Your task to perform on an android device: Open notification settings Image 0: 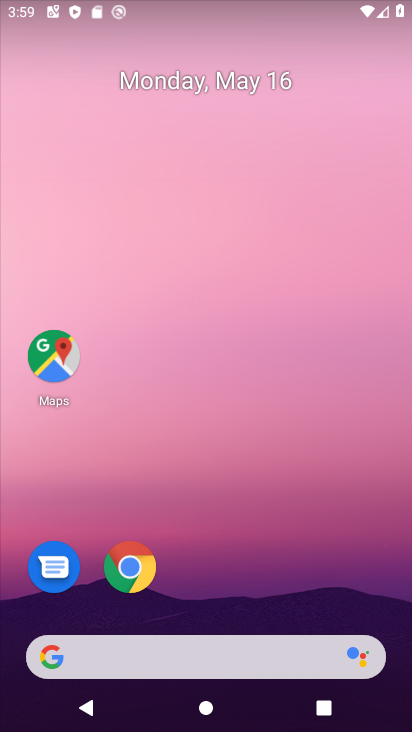
Step 0: drag from (181, 598) to (241, 2)
Your task to perform on an android device: Open notification settings Image 1: 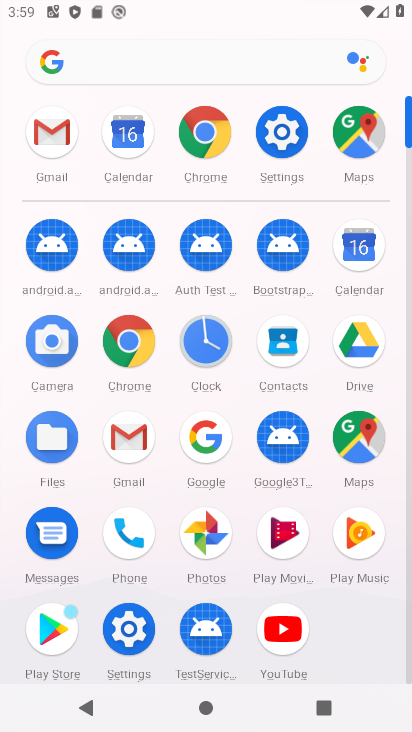
Step 1: click (276, 145)
Your task to perform on an android device: Open notification settings Image 2: 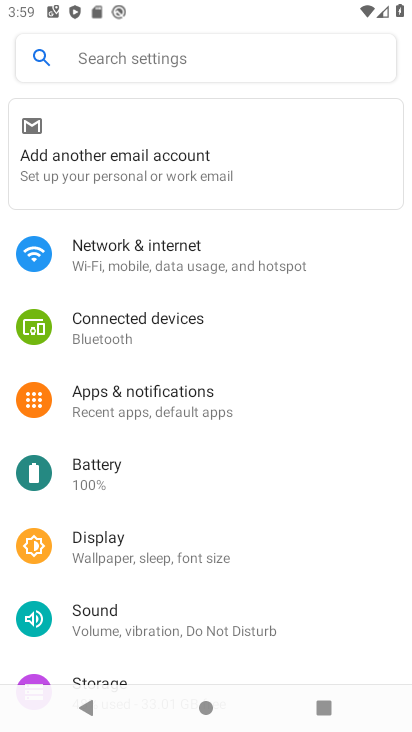
Step 2: click (172, 395)
Your task to perform on an android device: Open notification settings Image 3: 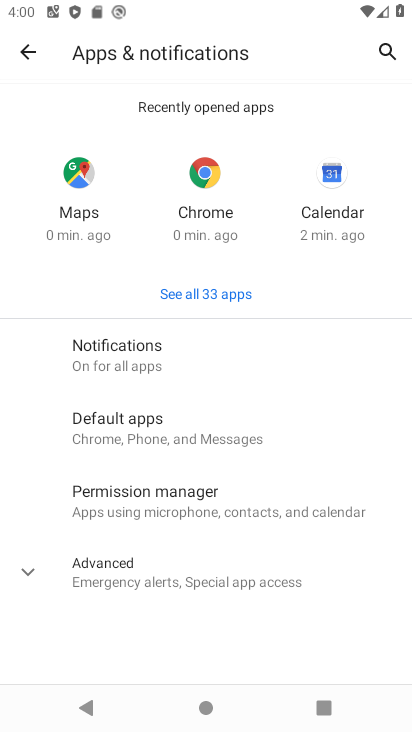
Step 3: click (170, 375)
Your task to perform on an android device: Open notification settings Image 4: 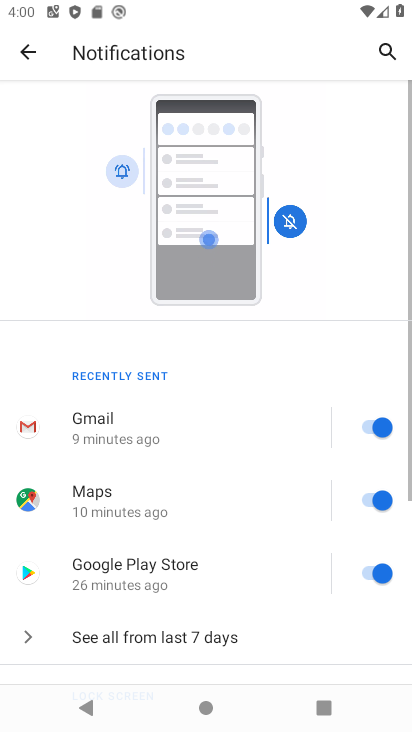
Step 4: task complete